Your task to perform on an android device: toggle javascript in the chrome app Image 0: 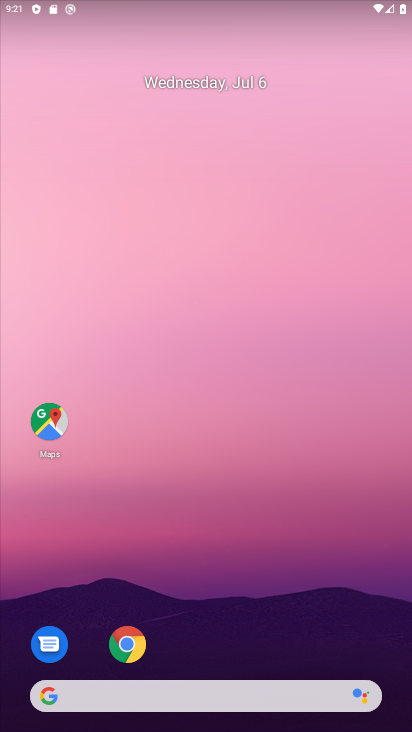
Step 0: drag from (288, 710) to (198, 269)
Your task to perform on an android device: toggle javascript in the chrome app Image 1: 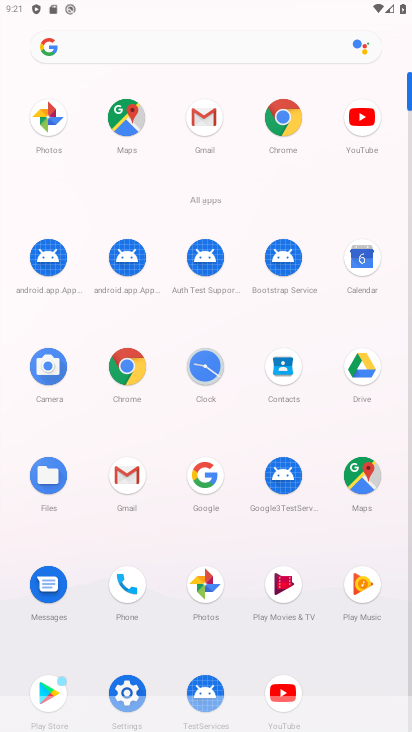
Step 1: click (138, 365)
Your task to perform on an android device: toggle javascript in the chrome app Image 2: 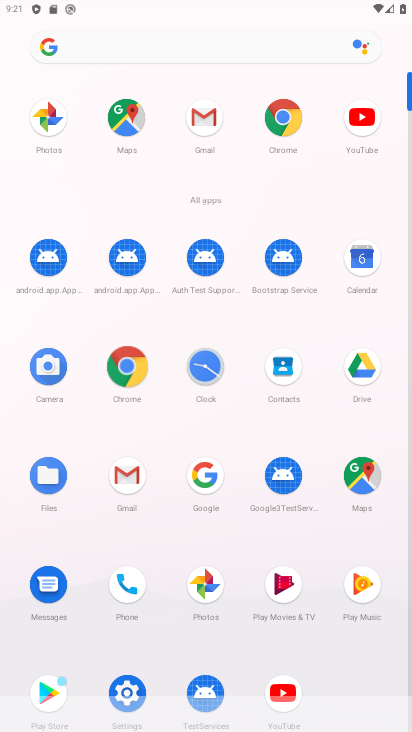
Step 2: click (138, 365)
Your task to perform on an android device: toggle javascript in the chrome app Image 3: 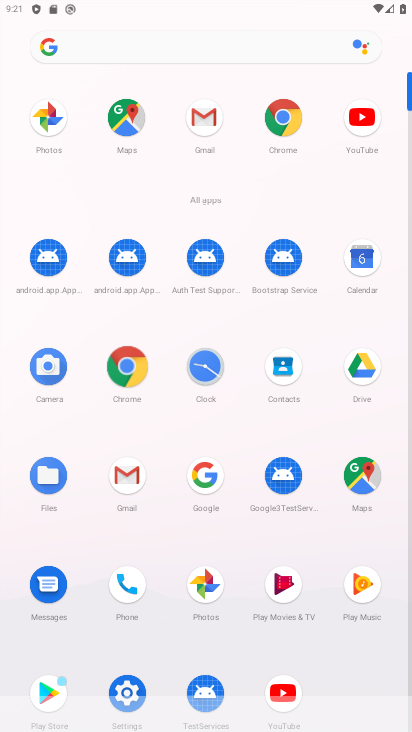
Step 3: click (138, 365)
Your task to perform on an android device: toggle javascript in the chrome app Image 4: 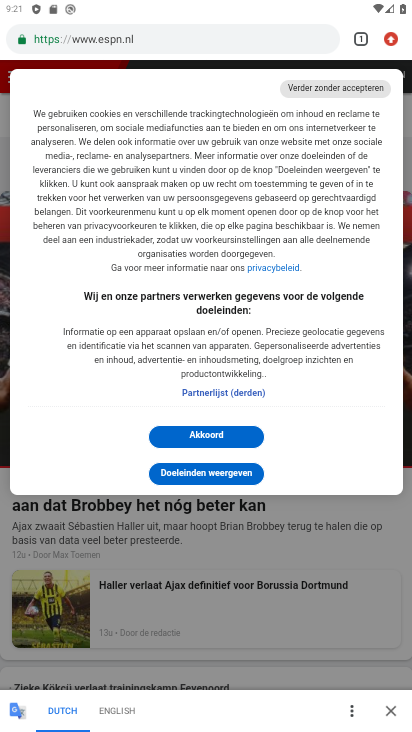
Step 4: press back button
Your task to perform on an android device: toggle javascript in the chrome app Image 5: 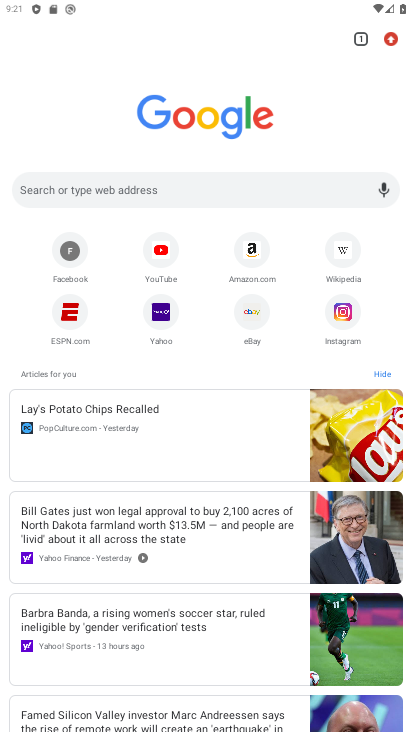
Step 5: drag from (302, 100) to (236, 553)
Your task to perform on an android device: toggle javascript in the chrome app Image 6: 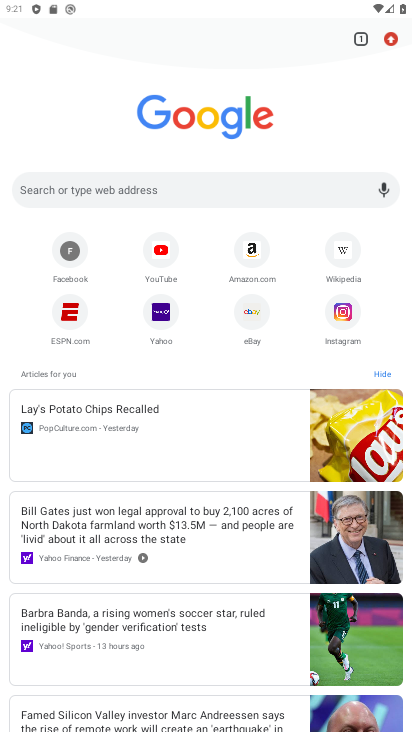
Step 6: drag from (293, 172) to (250, 697)
Your task to perform on an android device: toggle javascript in the chrome app Image 7: 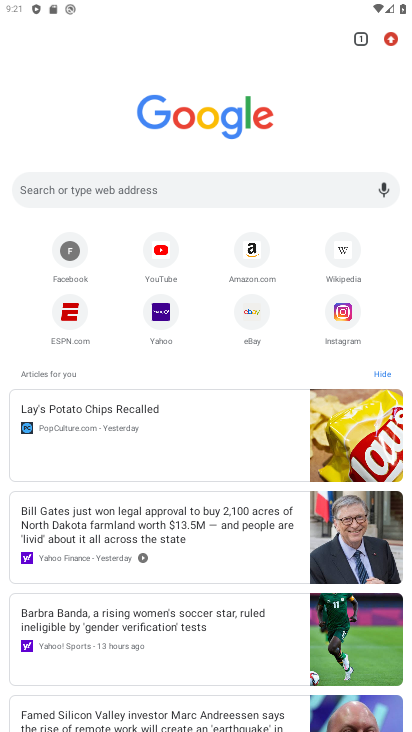
Step 7: drag from (307, 114) to (328, 513)
Your task to perform on an android device: toggle javascript in the chrome app Image 8: 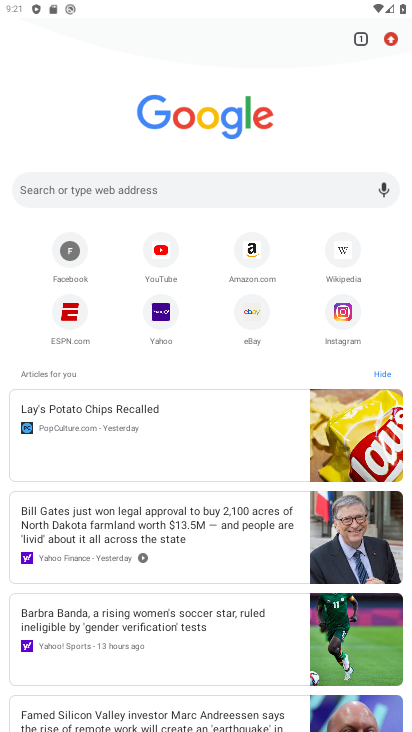
Step 8: drag from (304, 67) to (227, 671)
Your task to perform on an android device: toggle javascript in the chrome app Image 9: 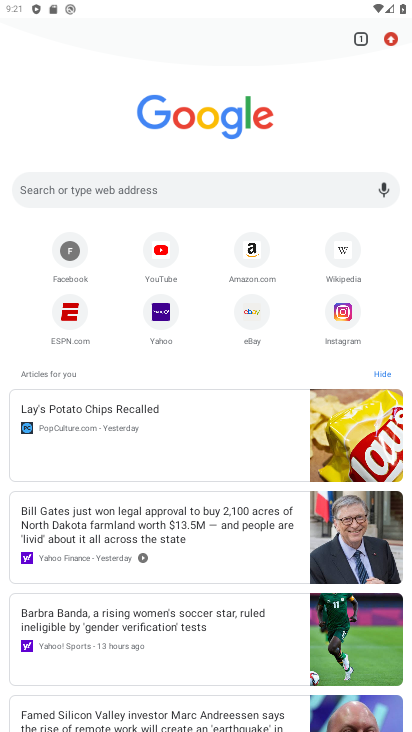
Step 9: drag from (212, 141) to (237, 610)
Your task to perform on an android device: toggle javascript in the chrome app Image 10: 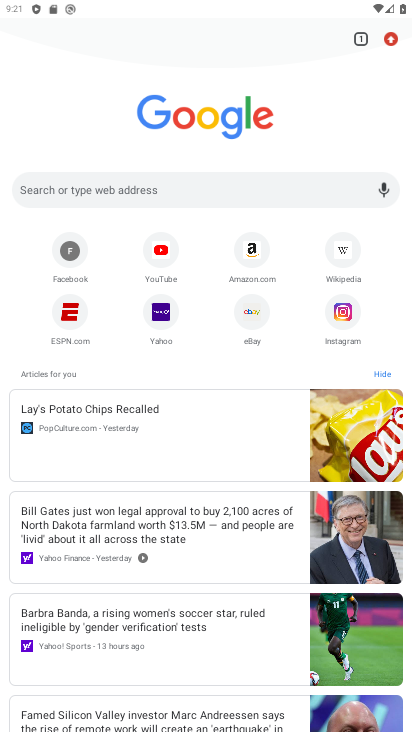
Step 10: drag from (300, 83) to (256, 615)
Your task to perform on an android device: toggle javascript in the chrome app Image 11: 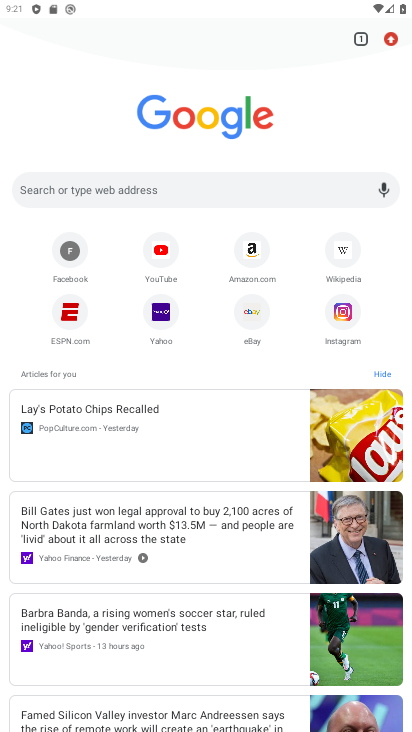
Step 11: drag from (274, 82) to (234, 498)
Your task to perform on an android device: toggle javascript in the chrome app Image 12: 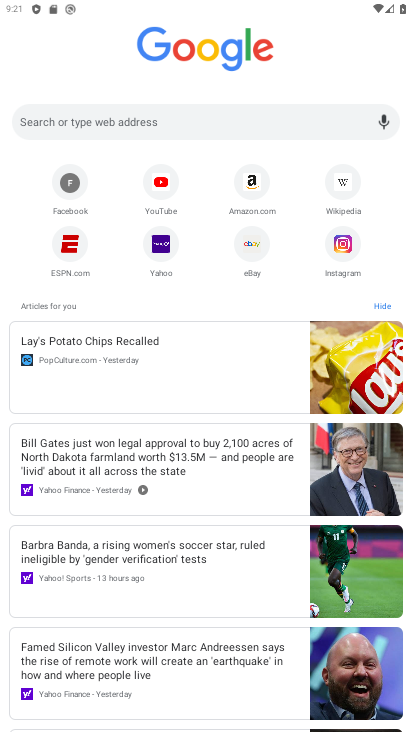
Step 12: drag from (356, 80) to (232, 698)
Your task to perform on an android device: toggle javascript in the chrome app Image 13: 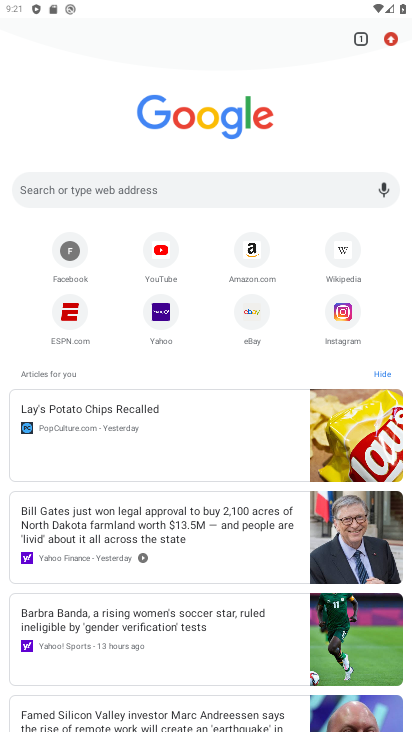
Step 13: drag from (395, 130) to (219, 722)
Your task to perform on an android device: toggle javascript in the chrome app Image 14: 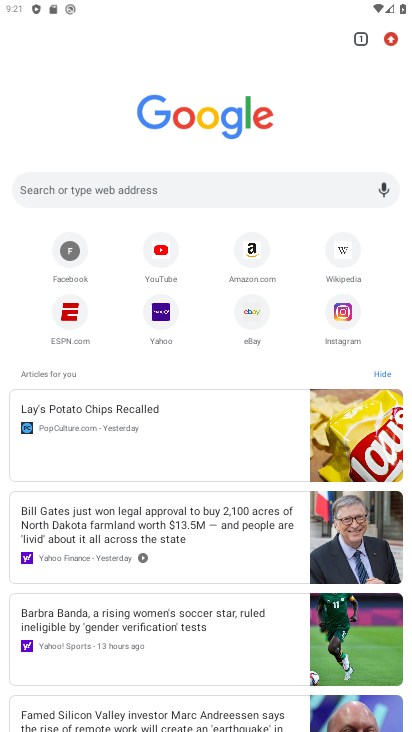
Step 14: drag from (375, 27) to (347, 435)
Your task to perform on an android device: toggle javascript in the chrome app Image 15: 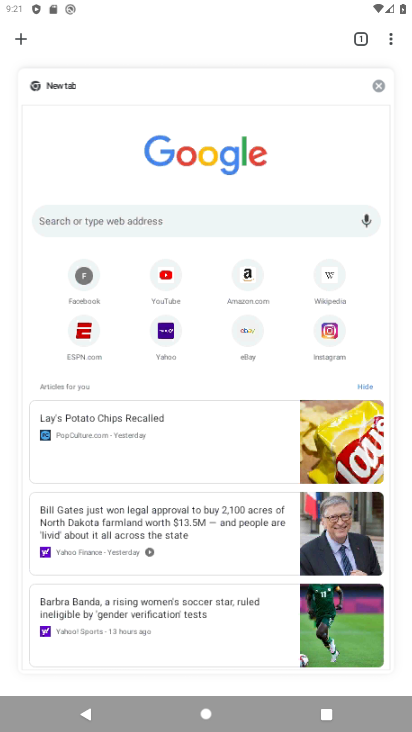
Step 15: click (392, 39)
Your task to perform on an android device: toggle javascript in the chrome app Image 16: 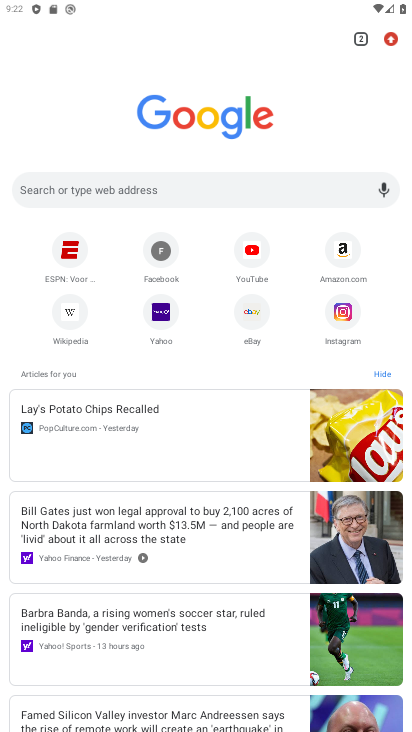
Step 16: drag from (384, 71) to (299, 636)
Your task to perform on an android device: toggle javascript in the chrome app Image 17: 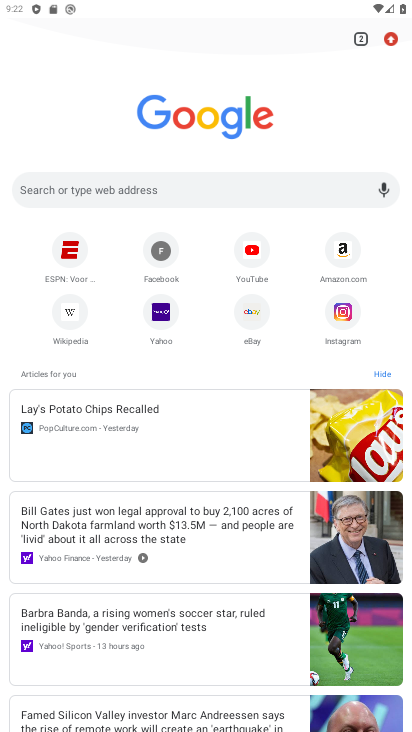
Step 17: drag from (307, 282) to (335, 661)
Your task to perform on an android device: toggle javascript in the chrome app Image 18: 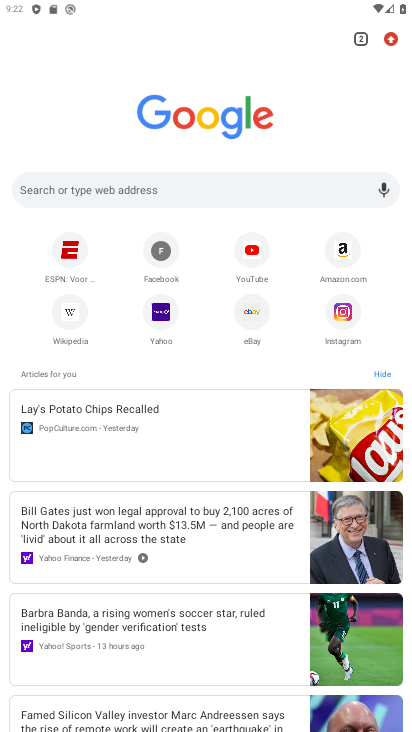
Step 18: click (373, 447)
Your task to perform on an android device: toggle javascript in the chrome app Image 19: 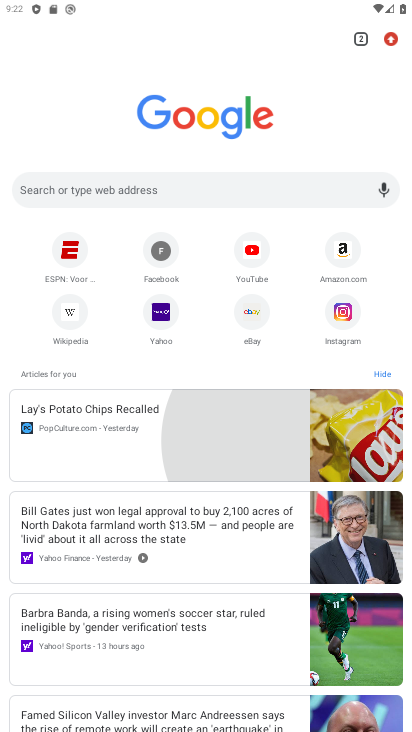
Step 19: drag from (350, 517) to (350, 577)
Your task to perform on an android device: toggle javascript in the chrome app Image 20: 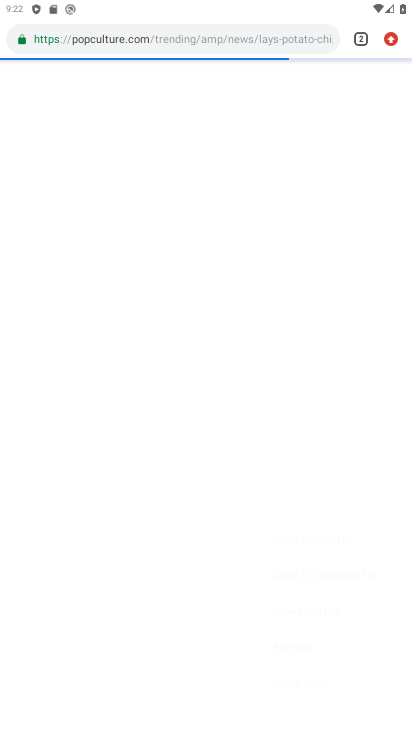
Step 20: click (278, 632)
Your task to perform on an android device: toggle javascript in the chrome app Image 21: 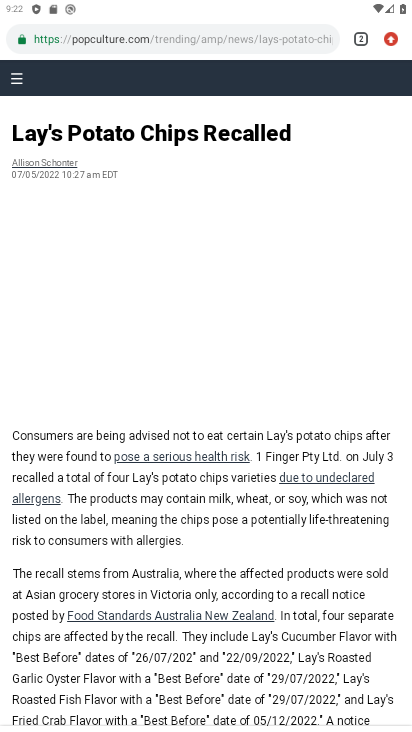
Step 21: click (193, 664)
Your task to perform on an android device: toggle javascript in the chrome app Image 22: 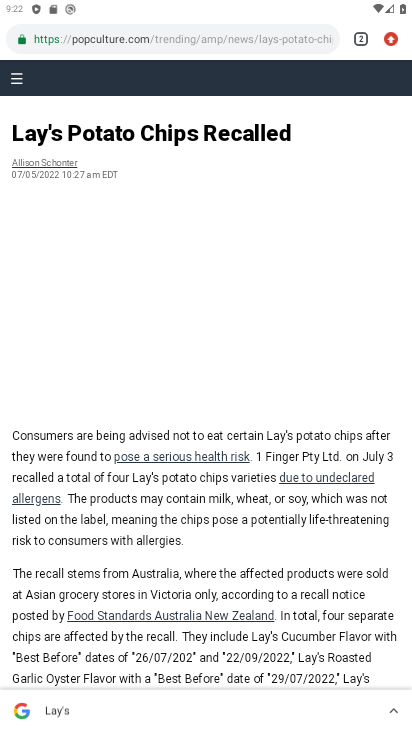
Step 22: drag from (345, 405) to (355, 362)
Your task to perform on an android device: toggle javascript in the chrome app Image 23: 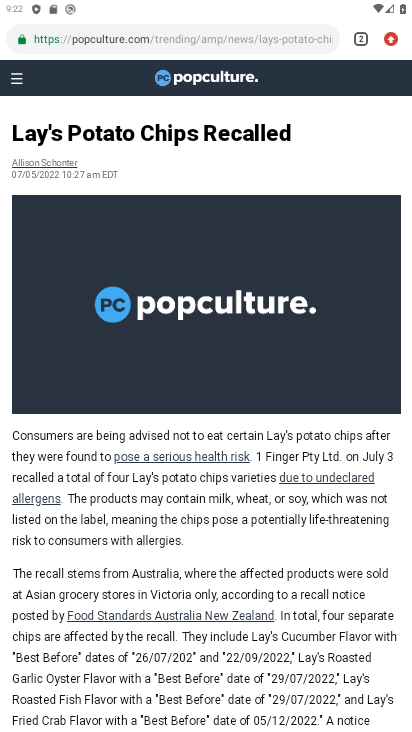
Step 23: drag from (372, 32) to (232, 581)
Your task to perform on an android device: toggle javascript in the chrome app Image 24: 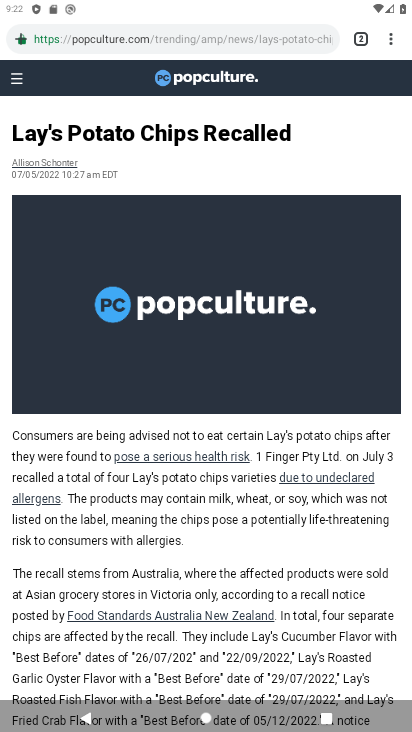
Step 24: drag from (372, 182) to (372, 645)
Your task to perform on an android device: toggle javascript in the chrome app Image 25: 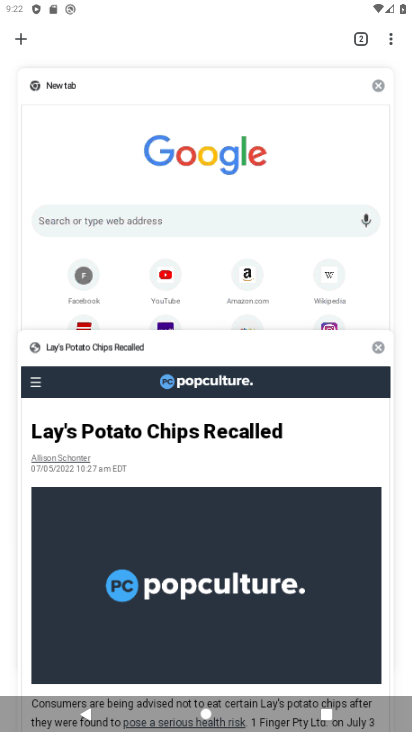
Step 25: drag from (342, 212) to (399, 688)
Your task to perform on an android device: toggle javascript in the chrome app Image 26: 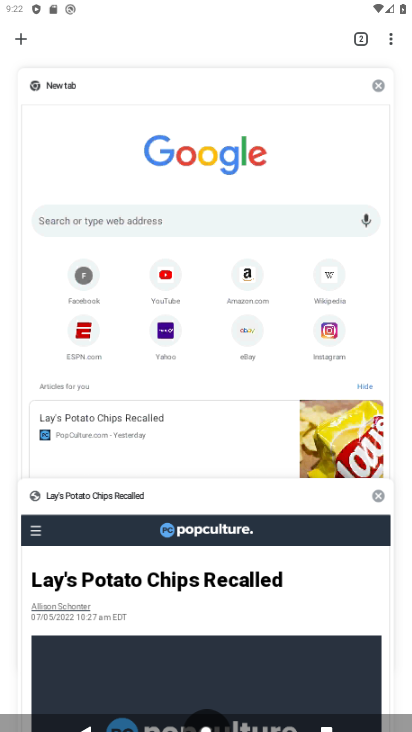
Step 26: drag from (324, 221) to (361, 650)
Your task to perform on an android device: toggle javascript in the chrome app Image 27: 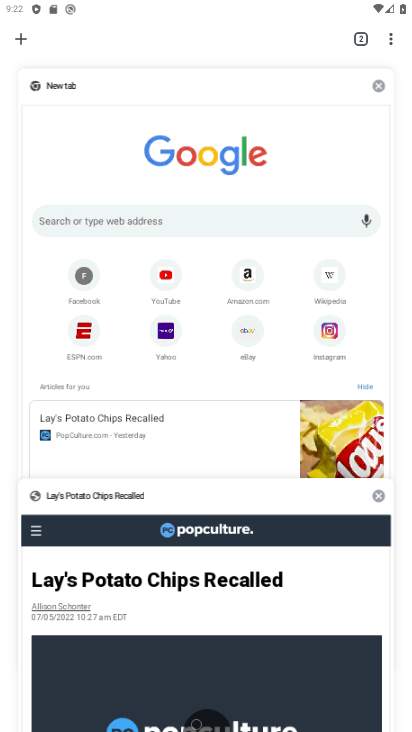
Step 27: drag from (392, 43) to (244, 151)
Your task to perform on an android device: toggle javascript in the chrome app Image 28: 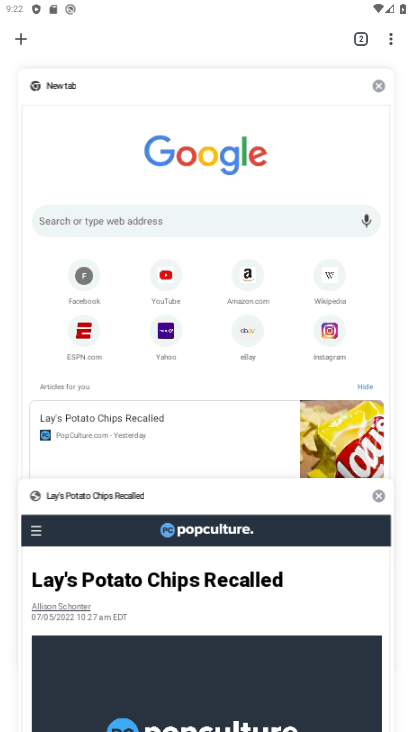
Step 28: click (255, 139)
Your task to perform on an android device: toggle javascript in the chrome app Image 29: 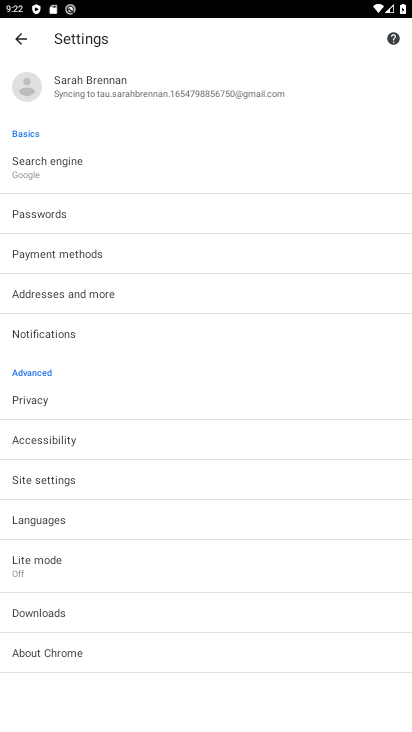
Step 29: click (15, 124)
Your task to perform on an android device: toggle javascript in the chrome app Image 30: 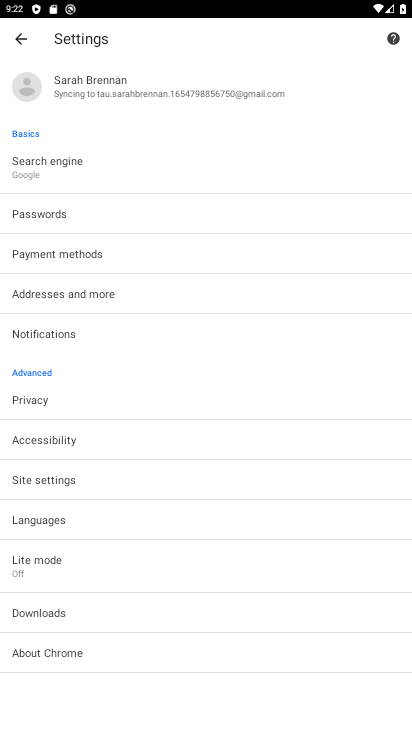
Step 30: drag from (186, 450) to (196, 156)
Your task to perform on an android device: toggle javascript in the chrome app Image 31: 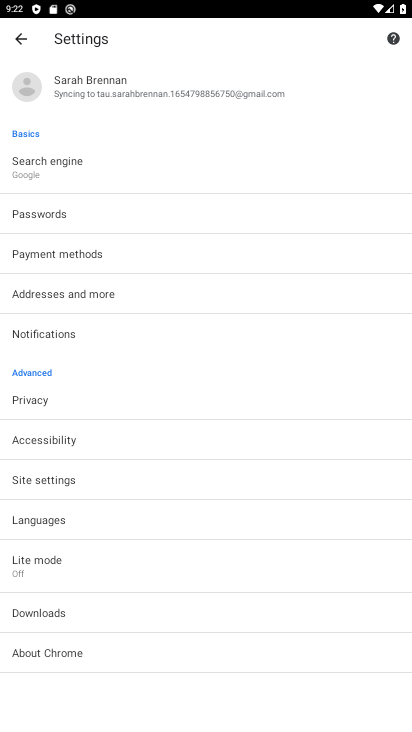
Step 31: click (66, 481)
Your task to perform on an android device: toggle javascript in the chrome app Image 32: 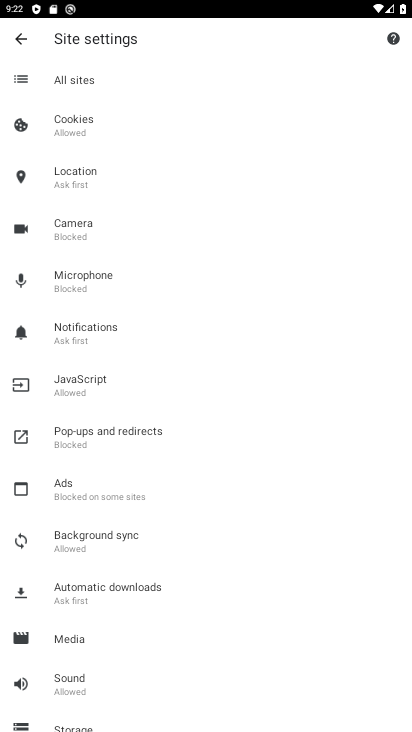
Step 32: click (81, 368)
Your task to perform on an android device: toggle javascript in the chrome app Image 33: 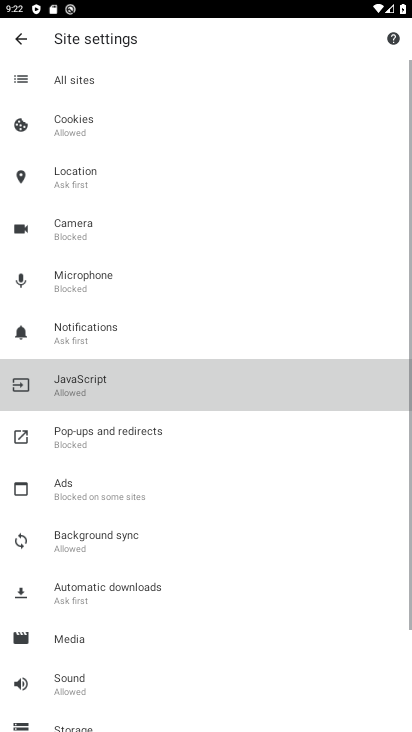
Step 33: click (88, 401)
Your task to perform on an android device: toggle javascript in the chrome app Image 34: 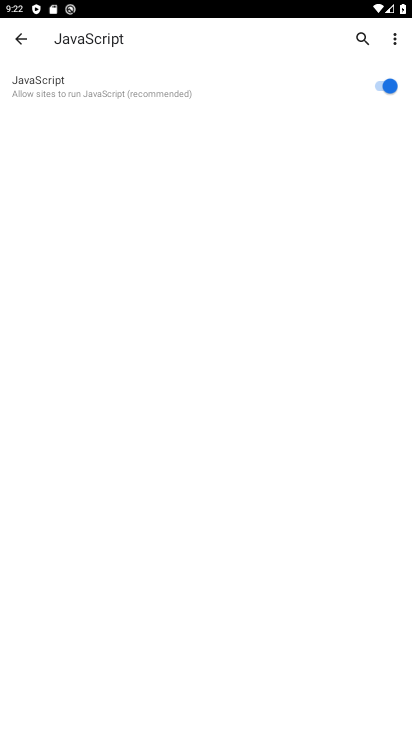
Step 34: click (89, 401)
Your task to perform on an android device: toggle javascript in the chrome app Image 35: 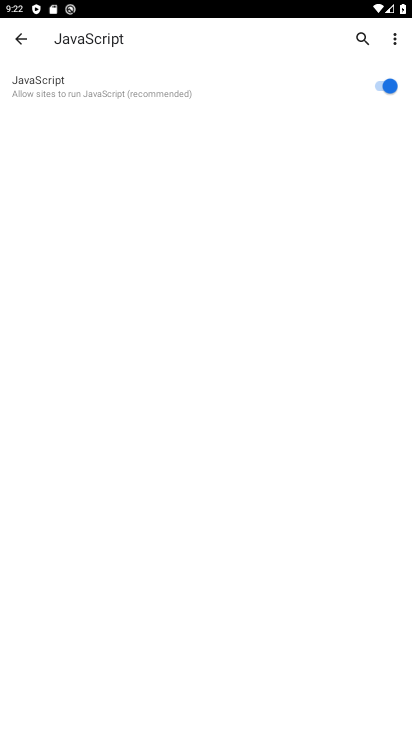
Step 35: click (394, 90)
Your task to perform on an android device: toggle javascript in the chrome app Image 36: 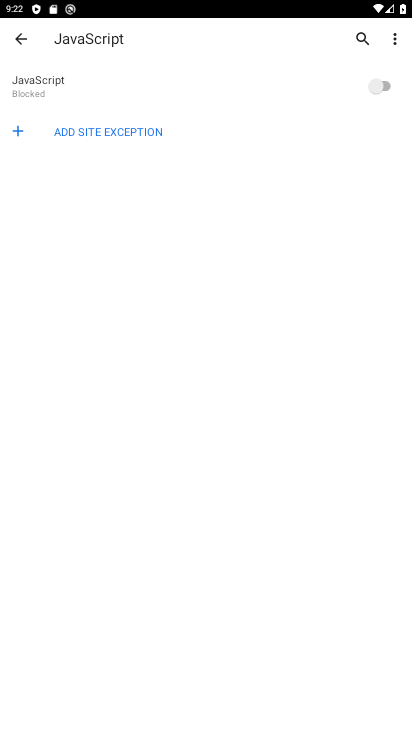
Step 36: task complete